Your task to perform on an android device: Go to display settings Image 0: 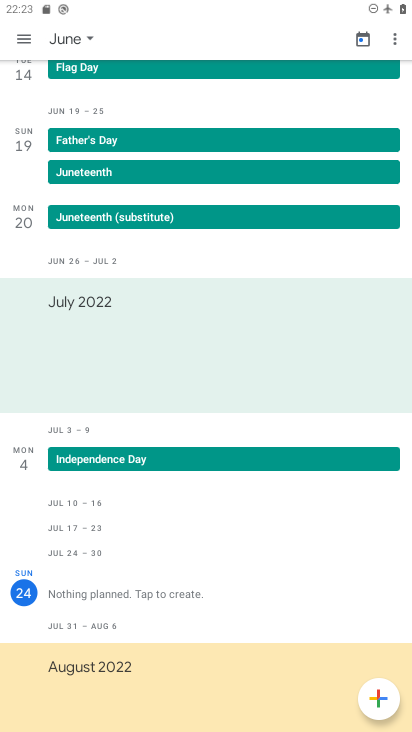
Step 0: press home button
Your task to perform on an android device: Go to display settings Image 1: 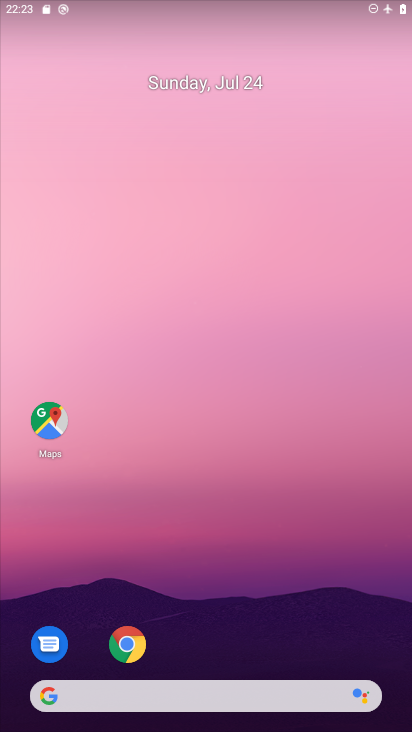
Step 1: drag from (352, 636) to (333, 206)
Your task to perform on an android device: Go to display settings Image 2: 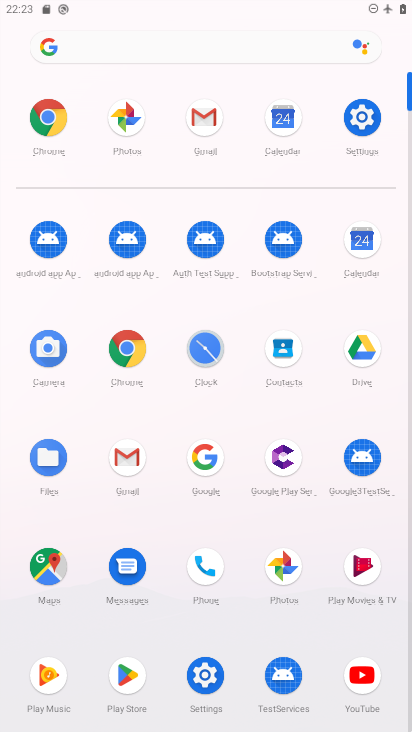
Step 2: click (205, 675)
Your task to perform on an android device: Go to display settings Image 3: 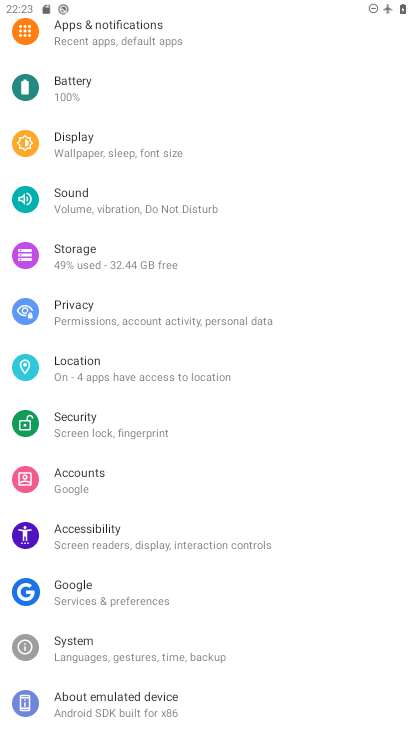
Step 3: click (64, 139)
Your task to perform on an android device: Go to display settings Image 4: 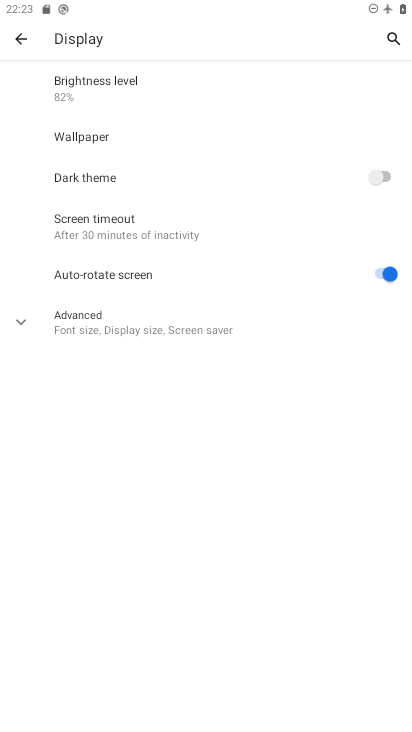
Step 4: click (21, 324)
Your task to perform on an android device: Go to display settings Image 5: 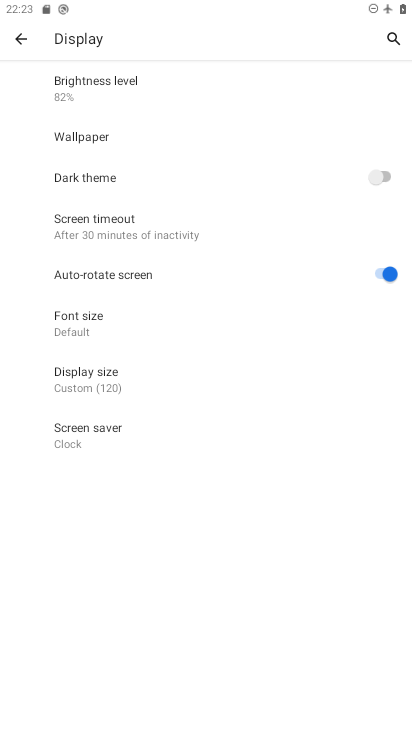
Step 5: task complete